Your task to perform on an android device: Show the shopping cart on bestbuy.com. Search for "usb-a to usb-b" on bestbuy.com, select the first entry, add it to the cart, then select checkout. Image 0: 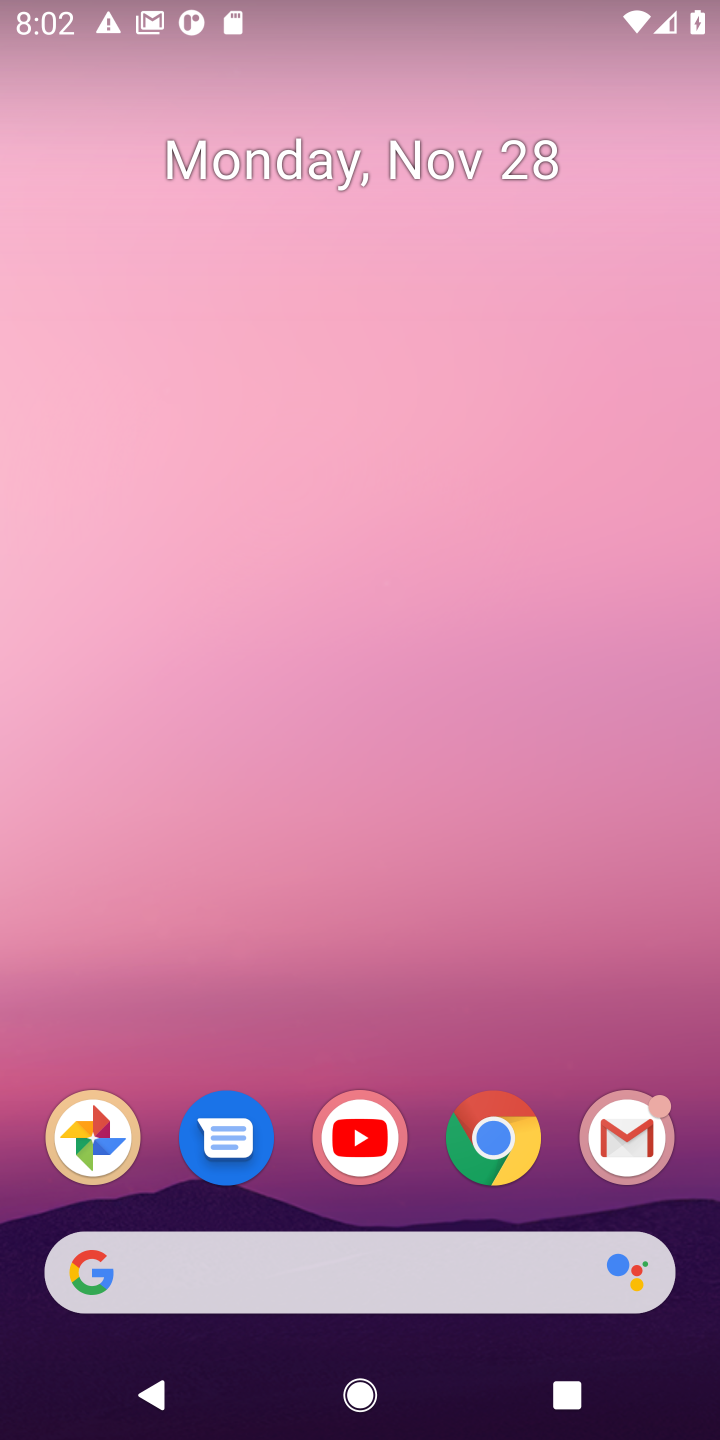
Step 0: click (496, 1143)
Your task to perform on an android device: Show the shopping cart on bestbuy.com. Search for "usb-a to usb-b" on bestbuy.com, select the first entry, add it to the cart, then select checkout. Image 1: 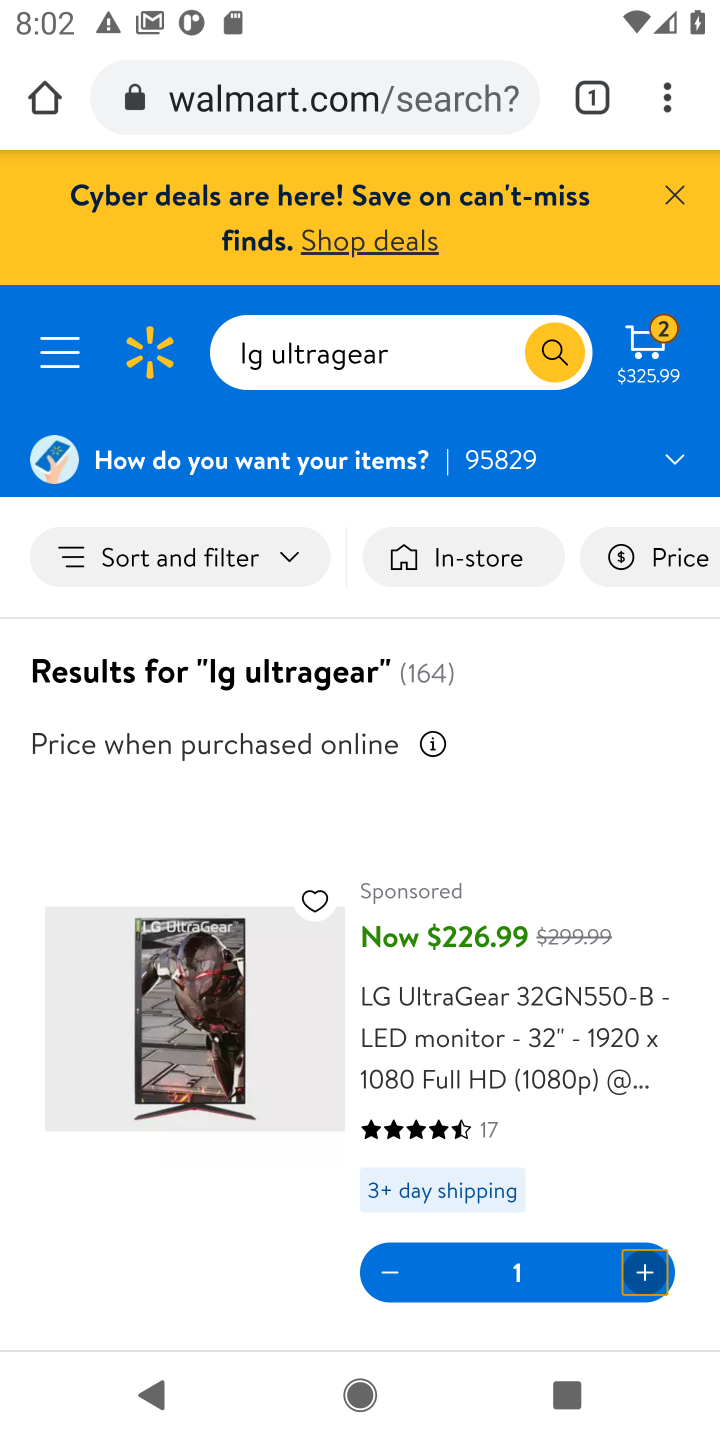
Step 1: click (290, 101)
Your task to perform on an android device: Show the shopping cart on bestbuy.com. Search for "usb-a to usb-b" on bestbuy.com, select the first entry, add it to the cart, then select checkout. Image 2: 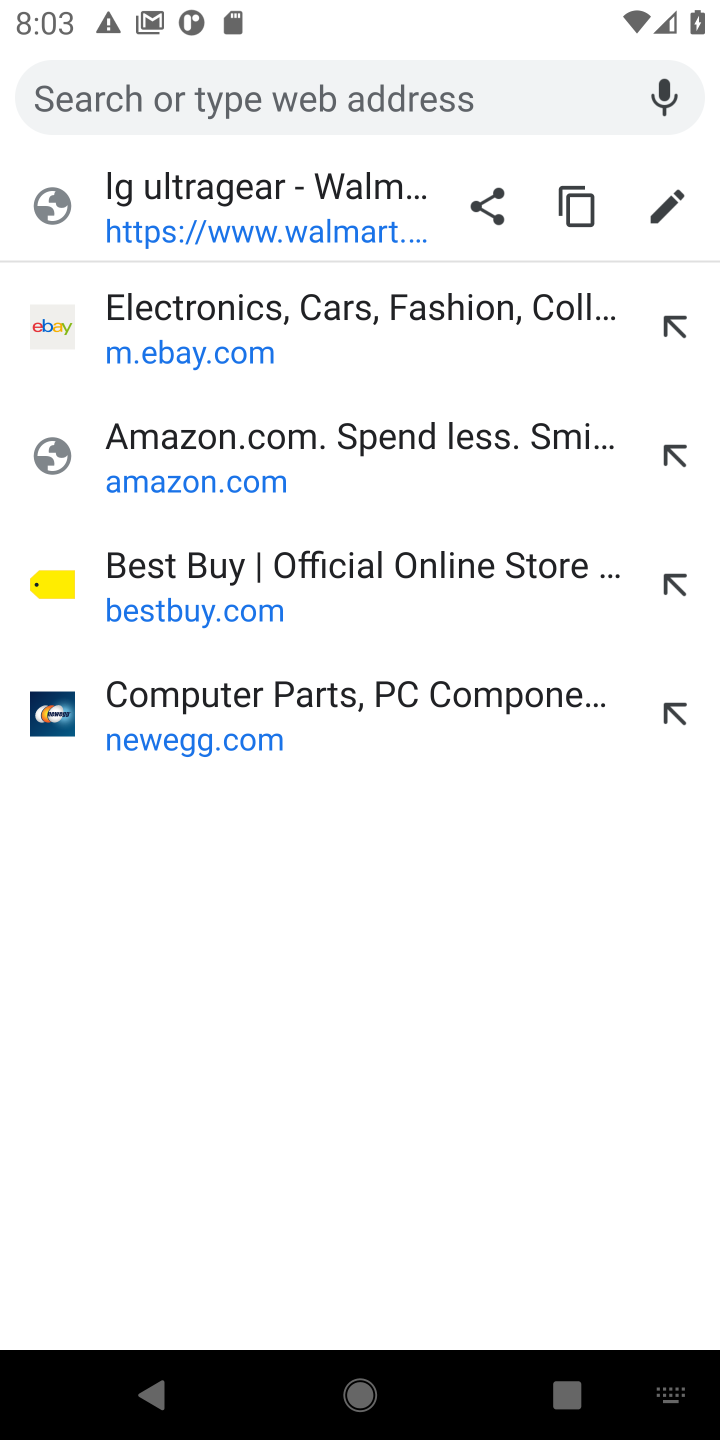
Step 2: click (194, 603)
Your task to perform on an android device: Show the shopping cart on bestbuy.com. Search for "usb-a to usb-b" on bestbuy.com, select the first entry, add it to the cart, then select checkout. Image 3: 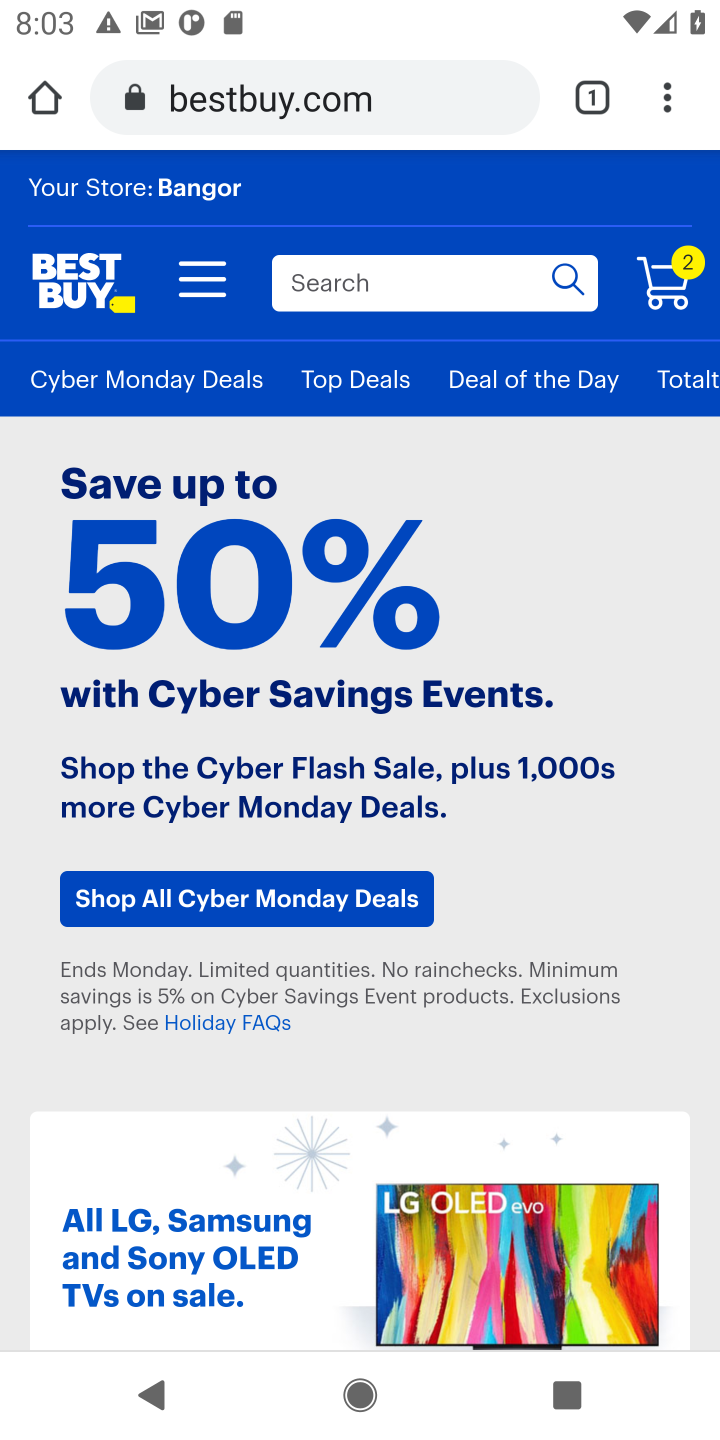
Step 3: click (673, 291)
Your task to perform on an android device: Show the shopping cart on bestbuy.com. Search for "usb-a to usb-b" on bestbuy.com, select the first entry, add it to the cart, then select checkout. Image 4: 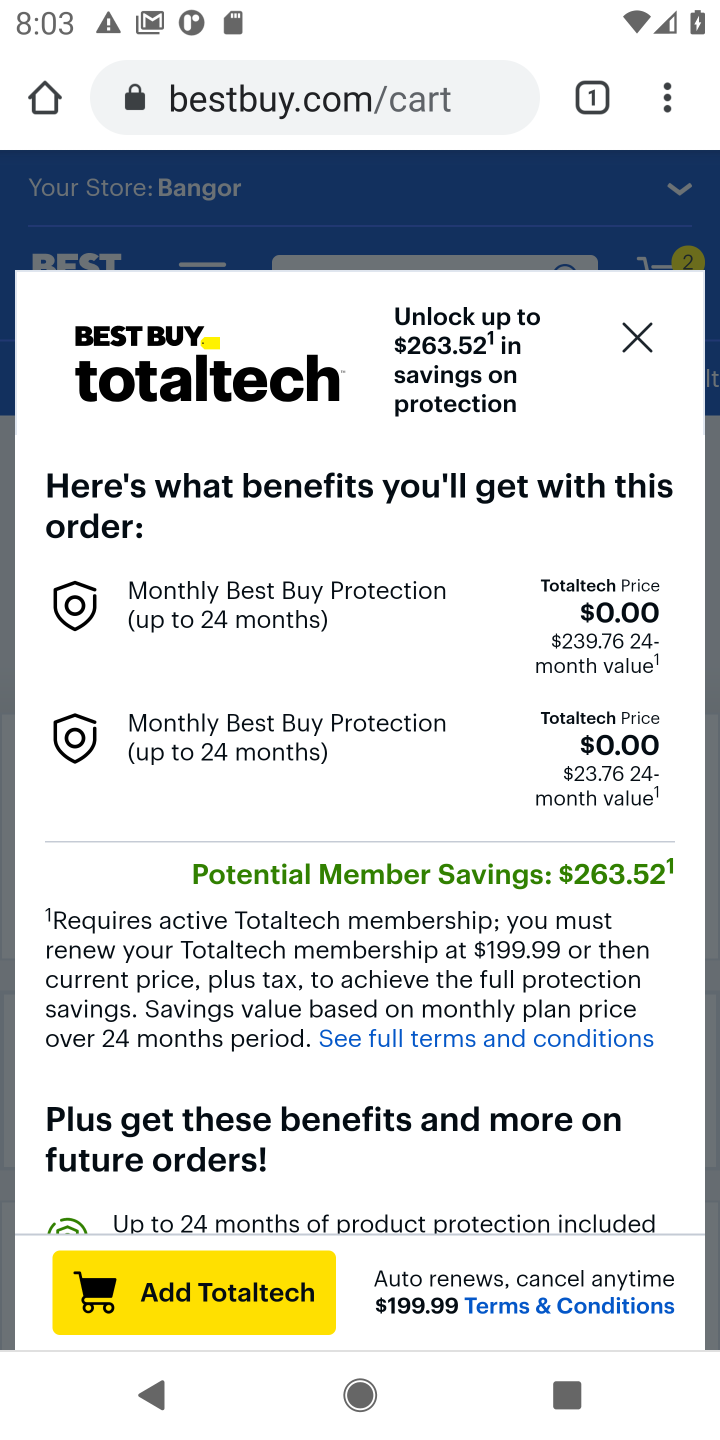
Step 4: click (653, 350)
Your task to perform on an android device: Show the shopping cart on bestbuy.com. Search for "usb-a to usb-b" on bestbuy.com, select the first entry, add it to the cart, then select checkout. Image 5: 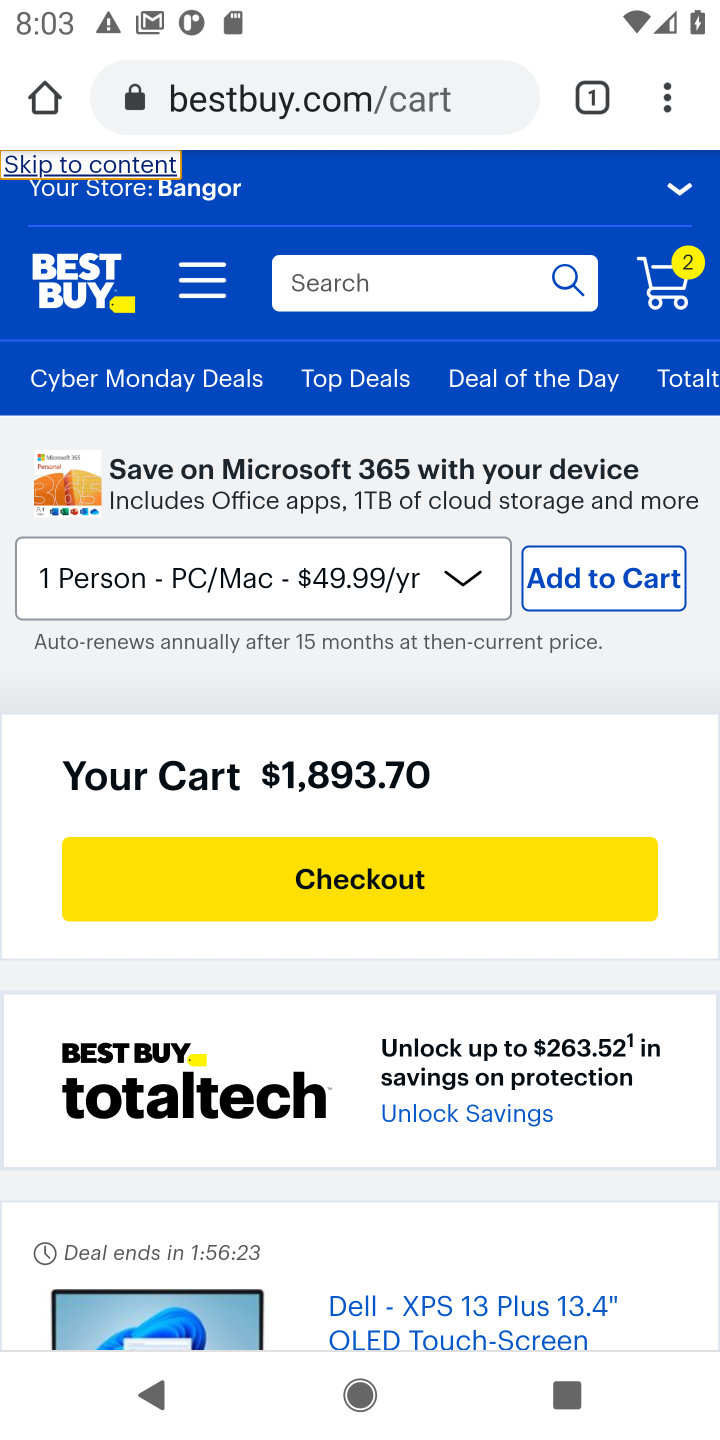
Step 5: click (420, 278)
Your task to perform on an android device: Show the shopping cart on bestbuy.com. Search for "usb-a to usb-b" on bestbuy.com, select the first entry, add it to the cart, then select checkout. Image 6: 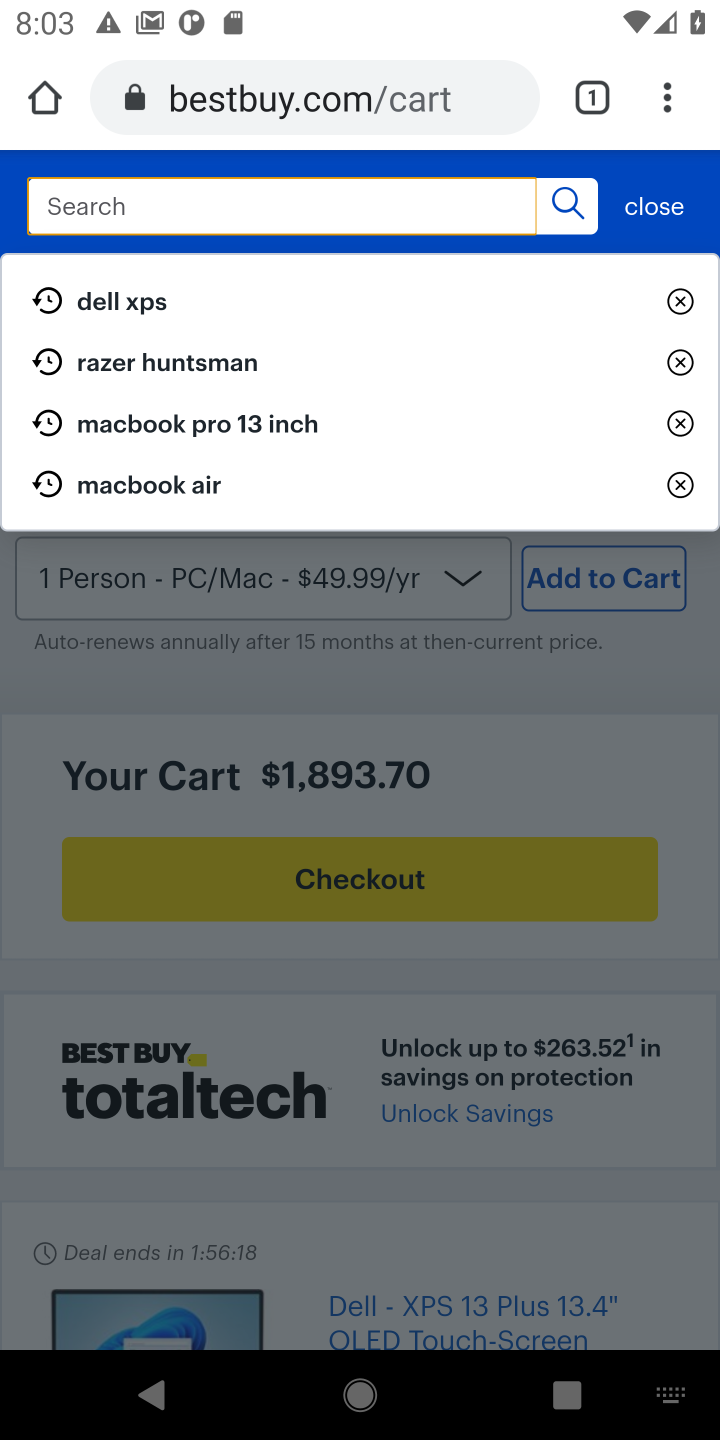
Step 6: type "usb-a to usb-b"
Your task to perform on an android device: Show the shopping cart on bestbuy.com. Search for "usb-a to usb-b" on bestbuy.com, select the first entry, add it to the cart, then select checkout. Image 7: 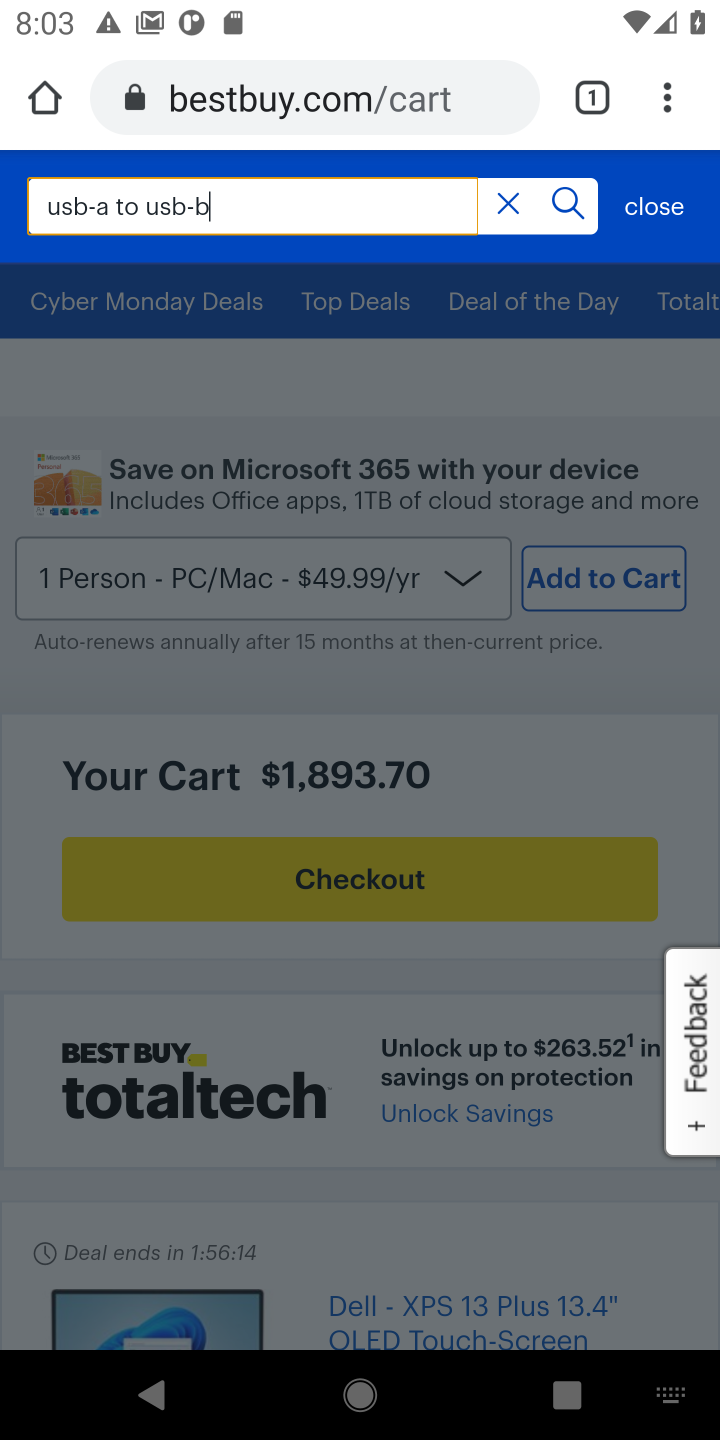
Step 7: click (552, 198)
Your task to perform on an android device: Show the shopping cart on bestbuy.com. Search for "usb-a to usb-b" on bestbuy.com, select the first entry, add it to the cart, then select checkout. Image 8: 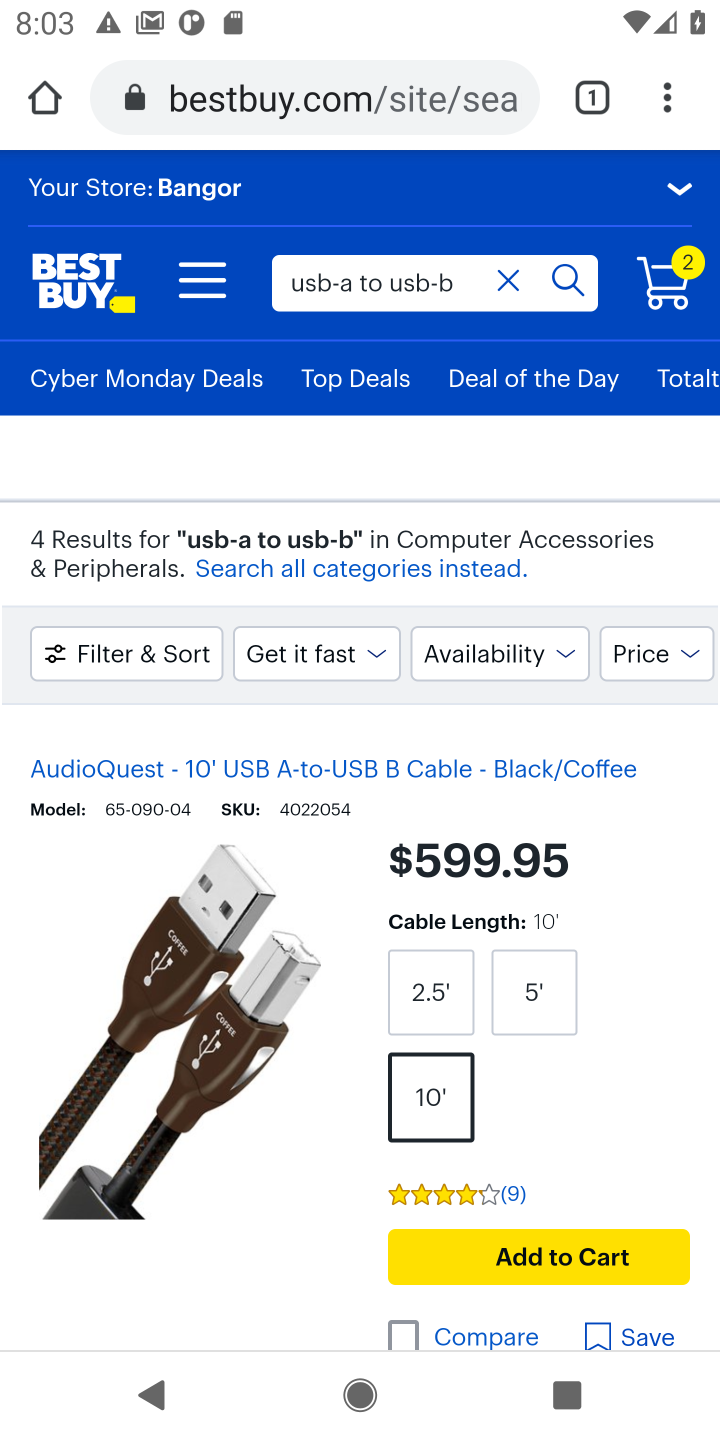
Step 8: drag from (274, 1085) to (346, 678)
Your task to perform on an android device: Show the shopping cart on bestbuy.com. Search for "usb-a to usb-b" on bestbuy.com, select the first entry, add it to the cart, then select checkout. Image 9: 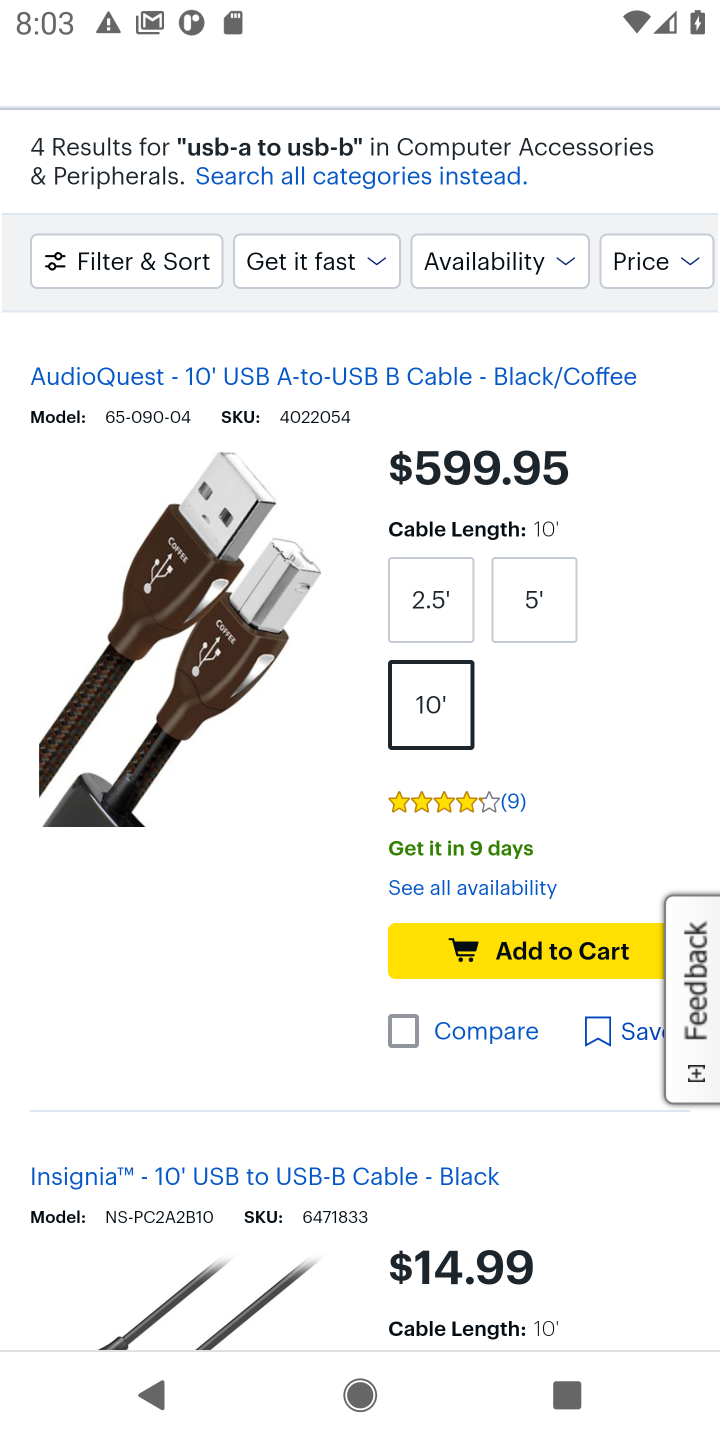
Step 9: click (494, 950)
Your task to perform on an android device: Show the shopping cart on bestbuy.com. Search for "usb-a to usb-b" on bestbuy.com, select the first entry, add it to the cart, then select checkout. Image 10: 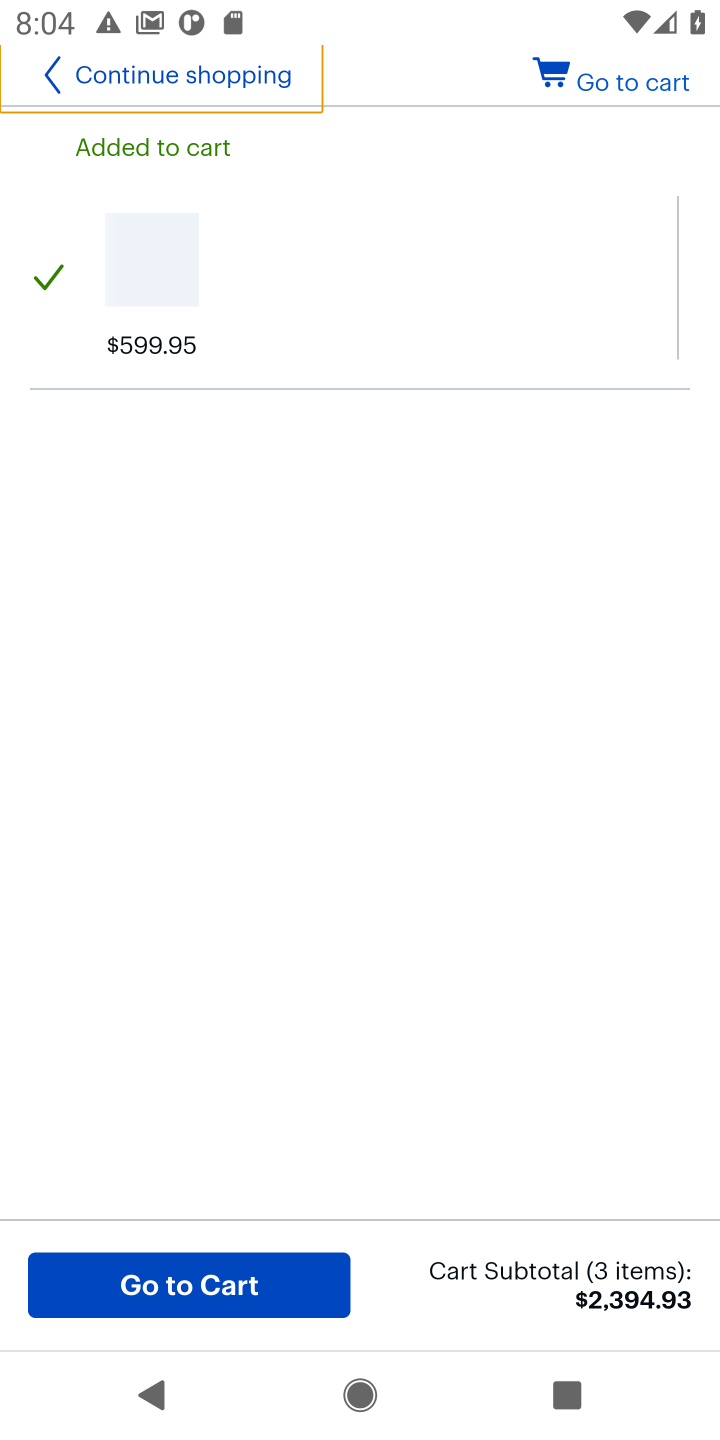
Step 10: click (622, 80)
Your task to perform on an android device: Show the shopping cart on bestbuy.com. Search for "usb-a to usb-b" on bestbuy.com, select the first entry, add it to the cart, then select checkout. Image 11: 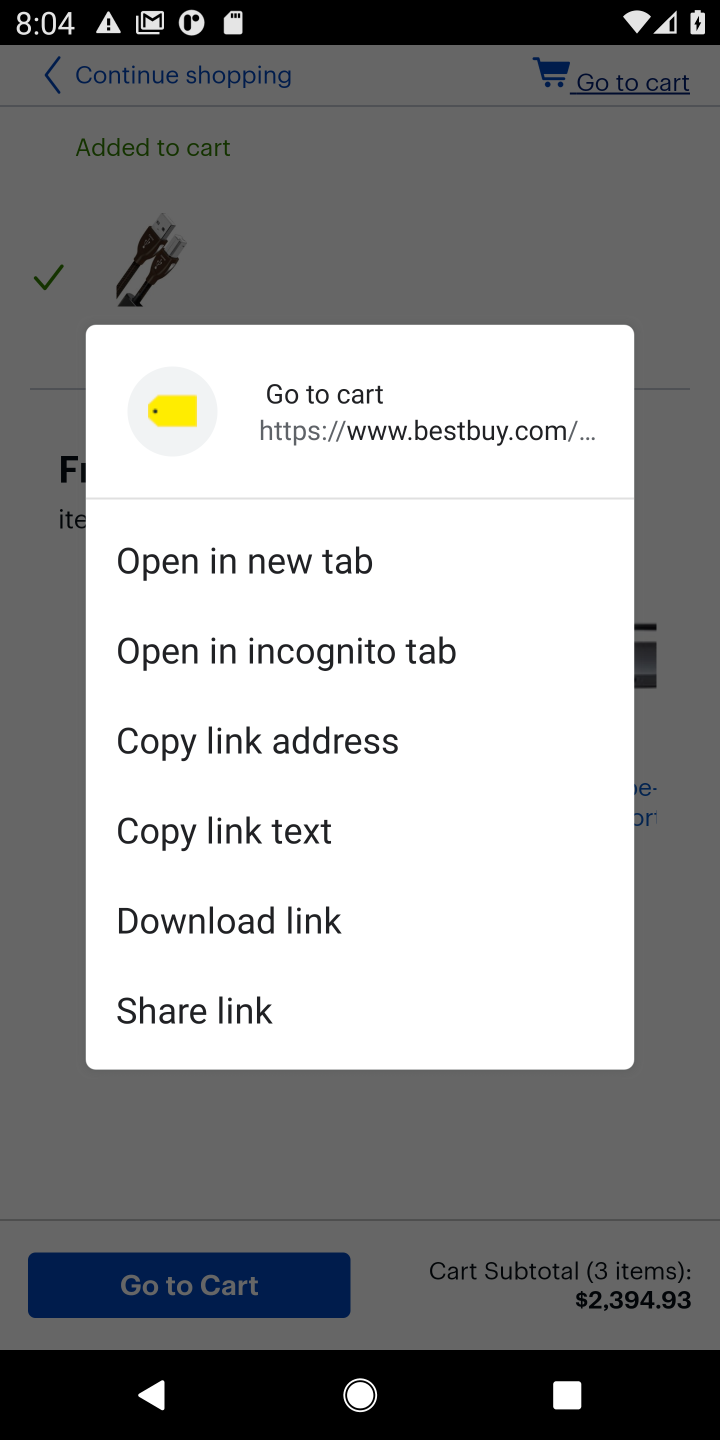
Step 11: click (622, 89)
Your task to perform on an android device: Show the shopping cart on bestbuy.com. Search for "usb-a to usb-b" on bestbuy.com, select the first entry, add it to the cart, then select checkout. Image 12: 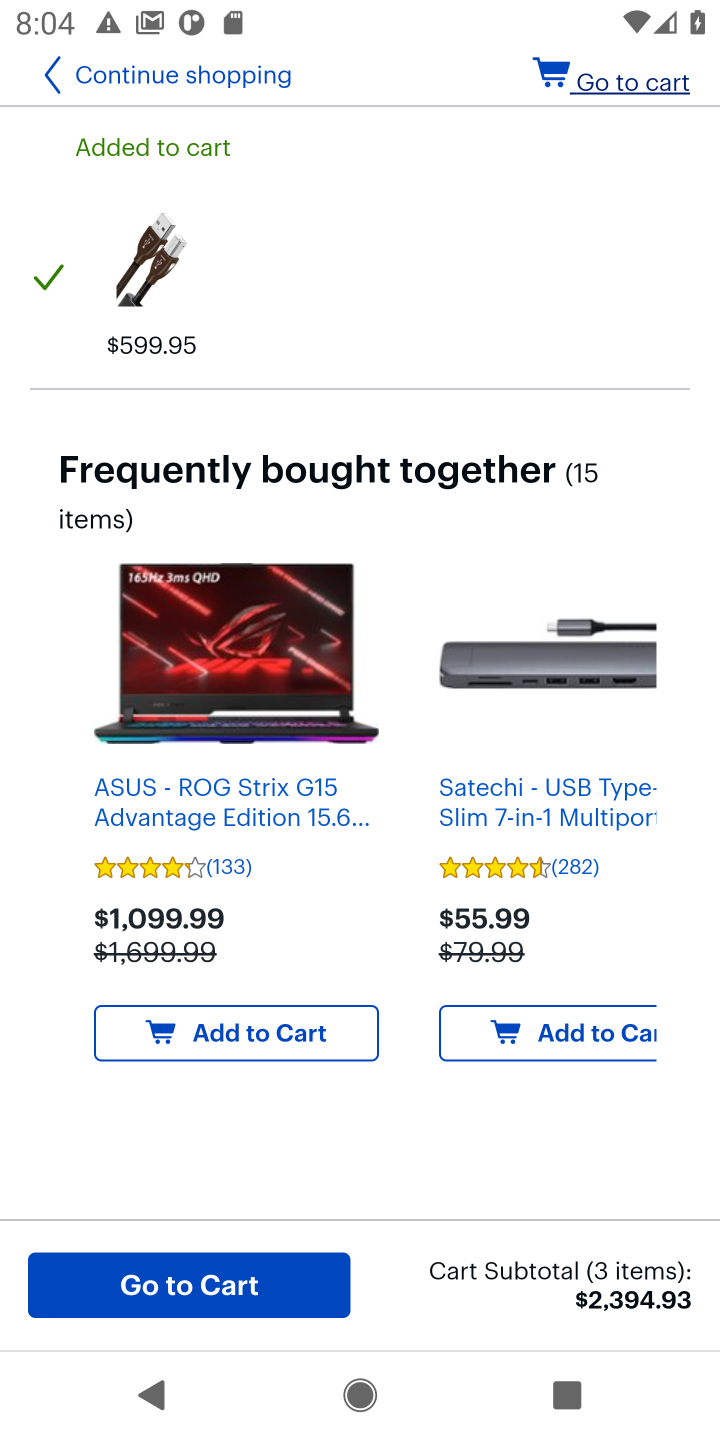
Step 12: click (622, 89)
Your task to perform on an android device: Show the shopping cart on bestbuy.com. Search for "usb-a to usb-b" on bestbuy.com, select the first entry, add it to the cart, then select checkout. Image 13: 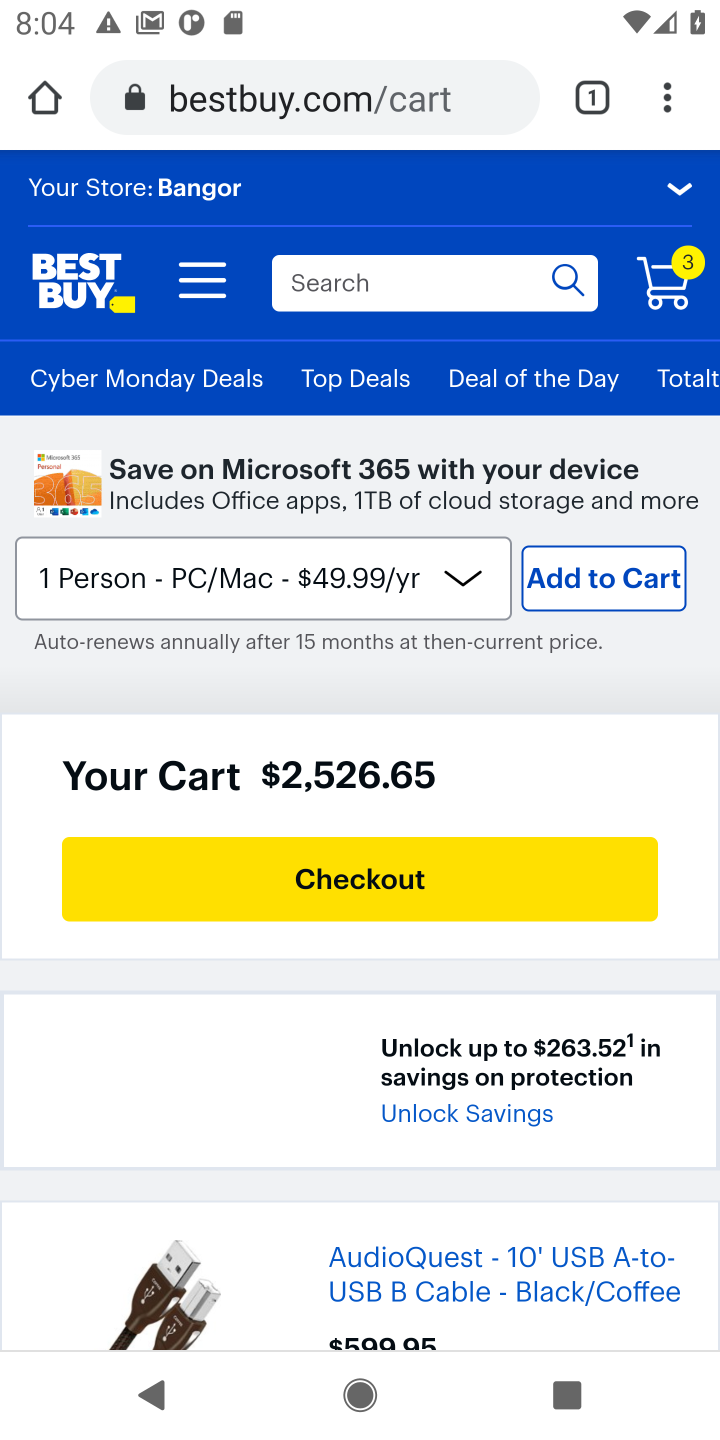
Step 13: click (393, 875)
Your task to perform on an android device: Show the shopping cart on bestbuy.com. Search for "usb-a to usb-b" on bestbuy.com, select the first entry, add it to the cart, then select checkout. Image 14: 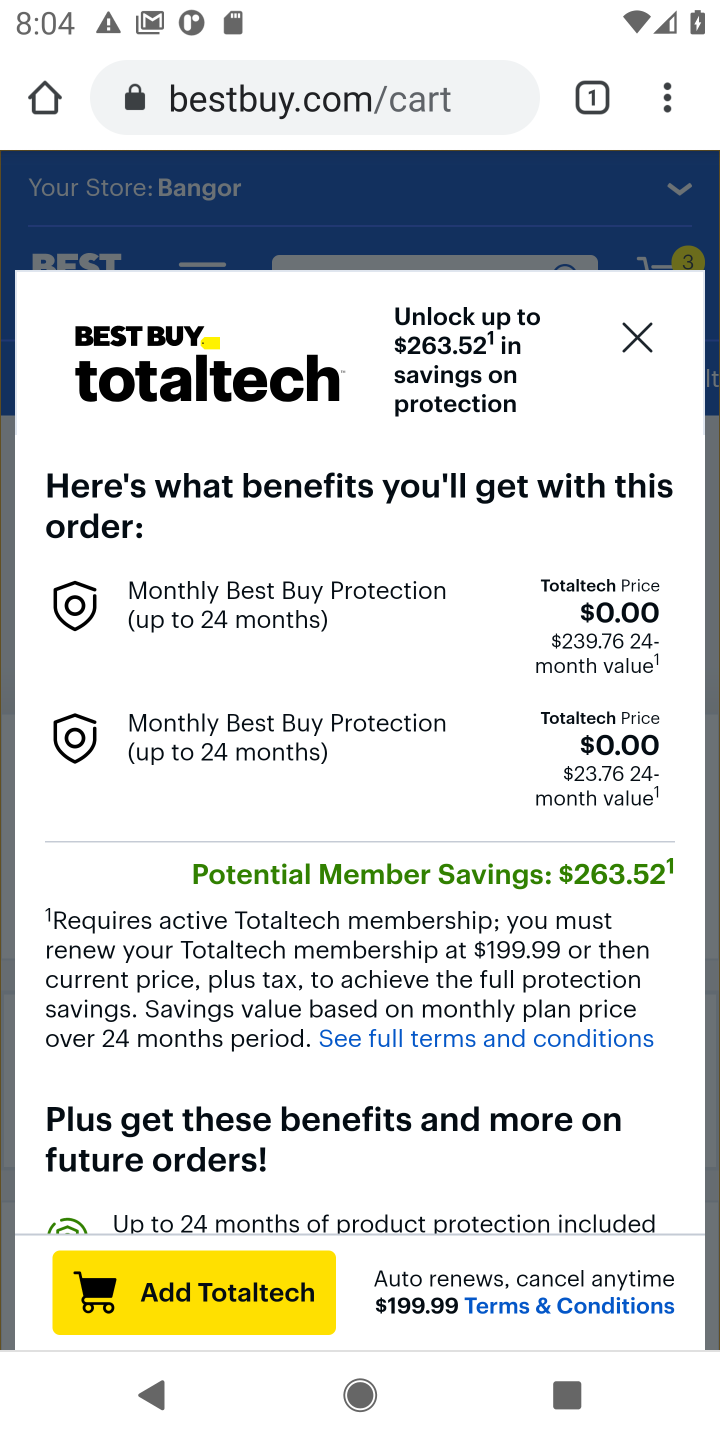
Step 14: click (633, 346)
Your task to perform on an android device: Show the shopping cart on bestbuy.com. Search for "usb-a to usb-b" on bestbuy.com, select the first entry, add it to the cart, then select checkout. Image 15: 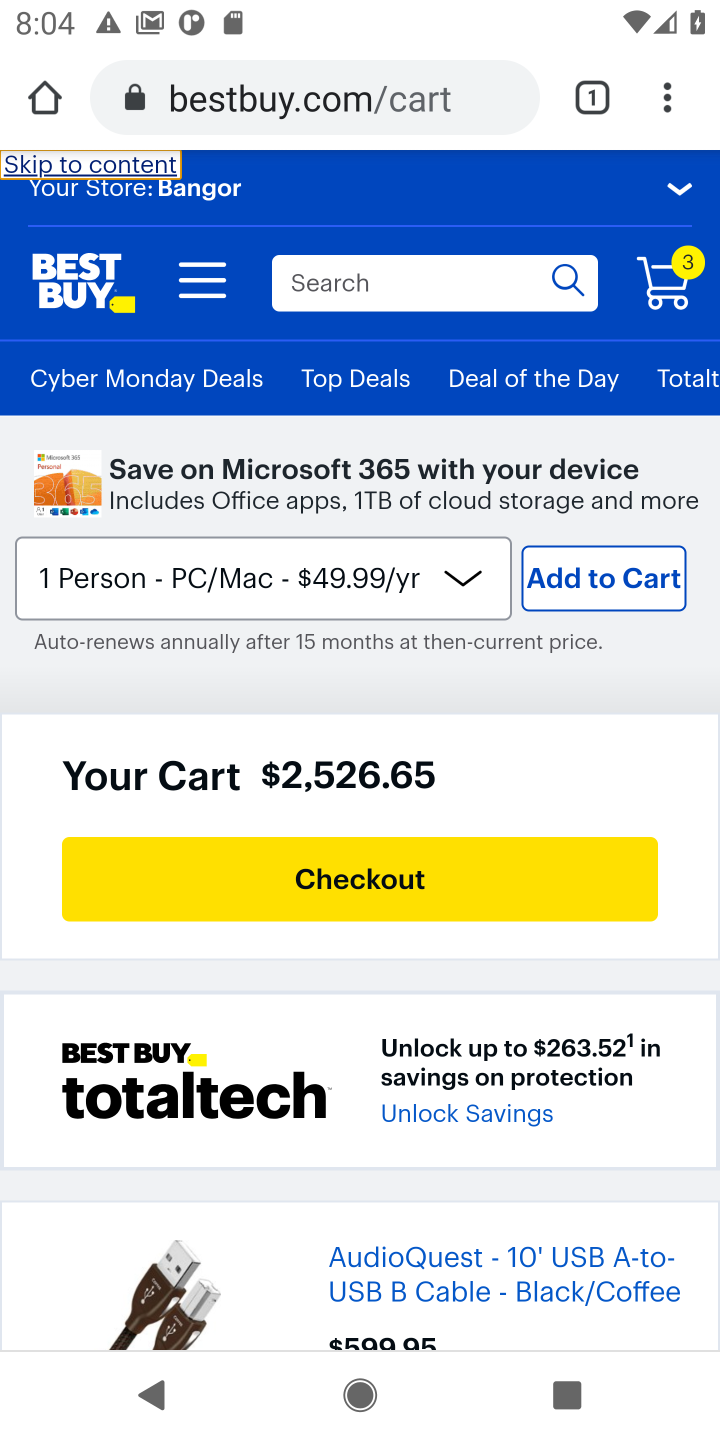
Step 15: click (424, 871)
Your task to perform on an android device: Show the shopping cart on bestbuy.com. Search for "usb-a to usb-b" on bestbuy.com, select the first entry, add it to the cart, then select checkout. Image 16: 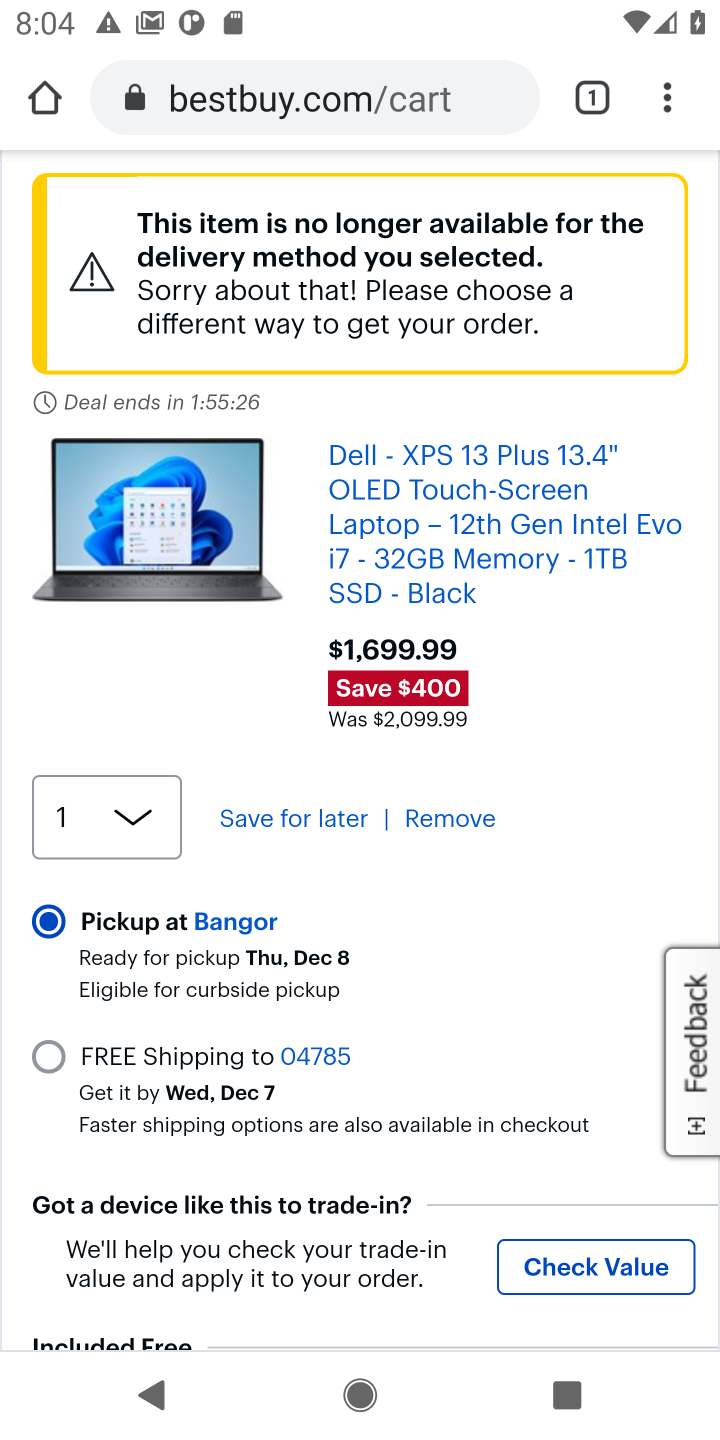
Step 16: task complete